Your task to perform on an android device: turn smart compose on in the gmail app Image 0: 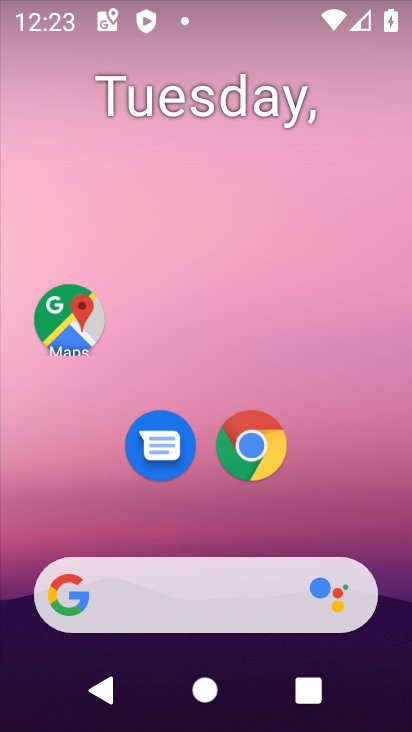
Step 0: drag from (363, 501) to (296, 24)
Your task to perform on an android device: turn smart compose on in the gmail app Image 1: 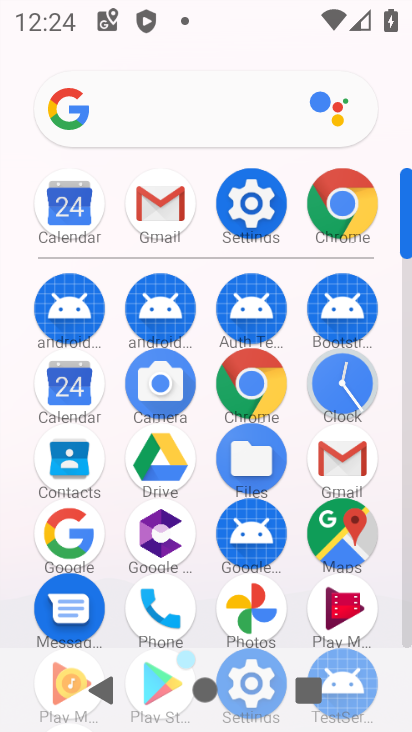
Step 1: click (162, 208)
Your task to perform on an android device: turn smart compose on in the gmail app Image 2: 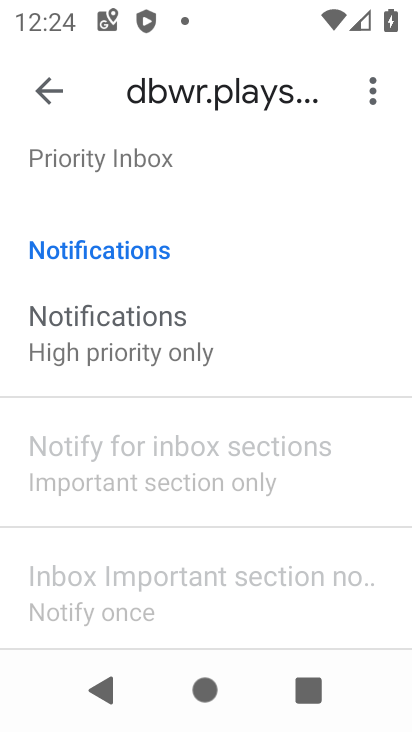
Step 2: task complete